Your task to perform on an android device: Show me recent news Image 0: 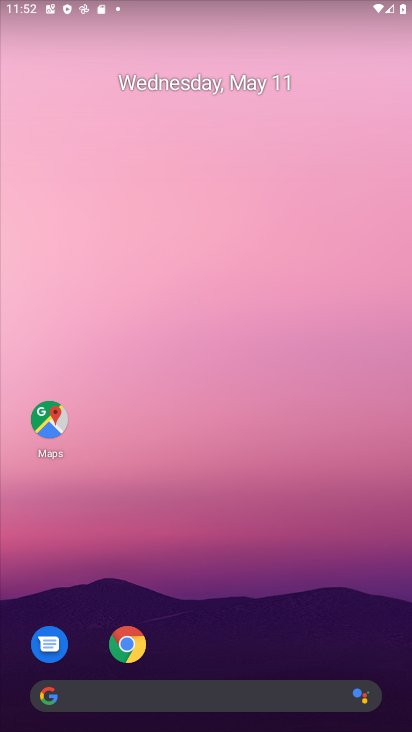
Step 0: click (330, 621)
Your task to perform on an android device: Show me recent news Image 1: 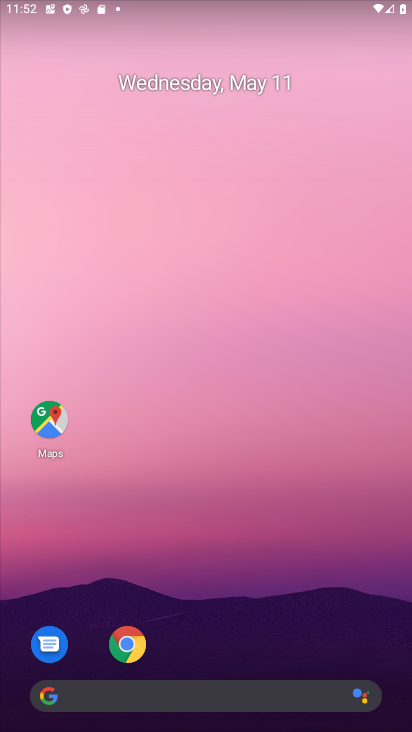
Step 1: click (275, 703)
Your task to perform on an android device: Show me recent news Image 2: 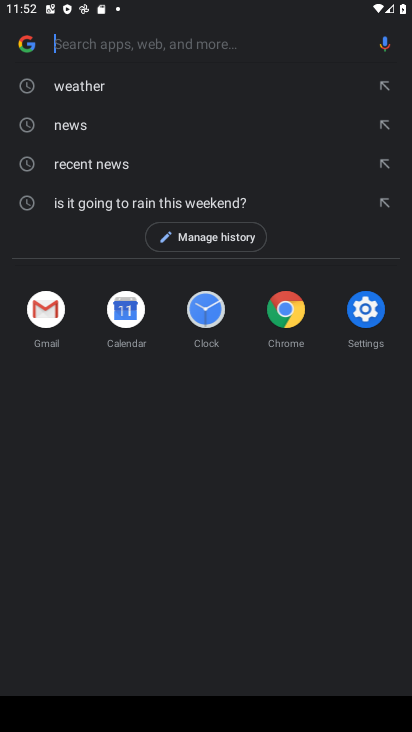
Step 2: click (93, 157)
Your task to perform on an android device: Show me recent news Image 3: 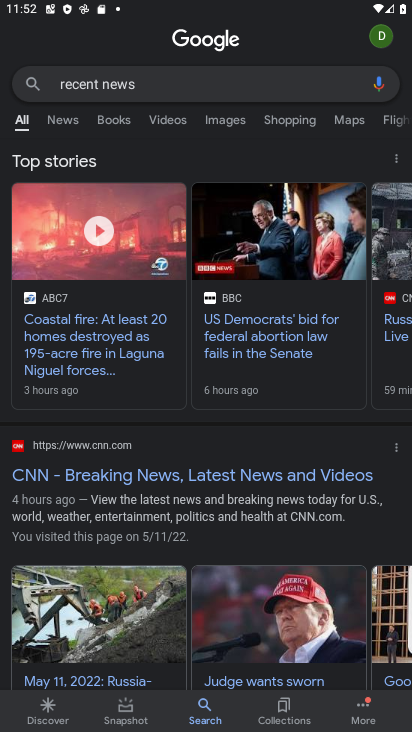
Step 3: task complete